Your task to perform on an android device: Search for vegetarian restaurants on Maps Image 0: 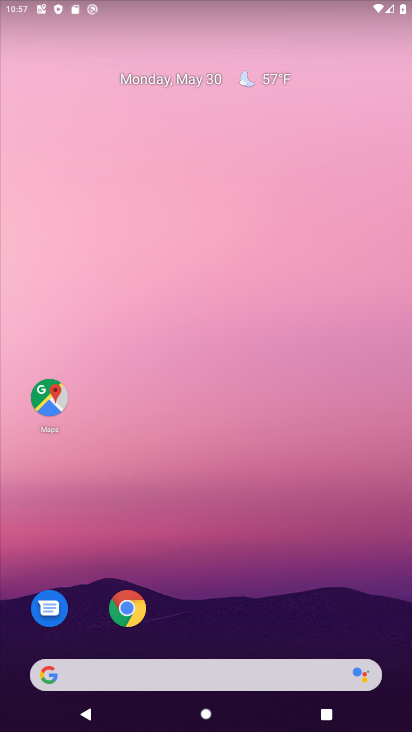
Step 0: drag from (312, 546) to (271, 35)
Your task to perform on an android device: Search for vegetarian restaurants on Maps Image 1: 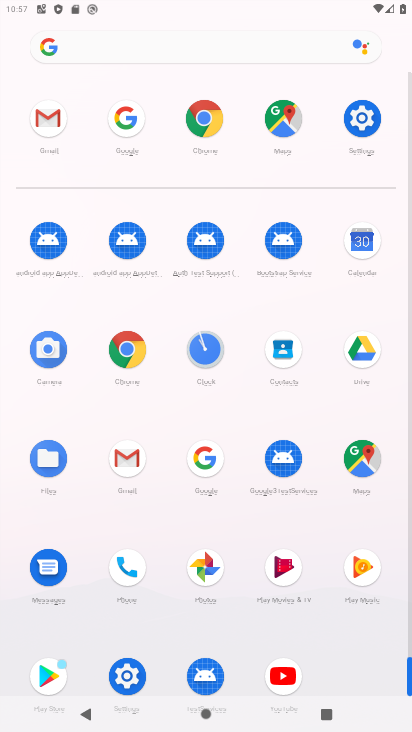
Step 1: drag from (18, 594) to (17, 216)
Your task to perform on an android device: Search for vegetarian restaurants on Maps Image 2: 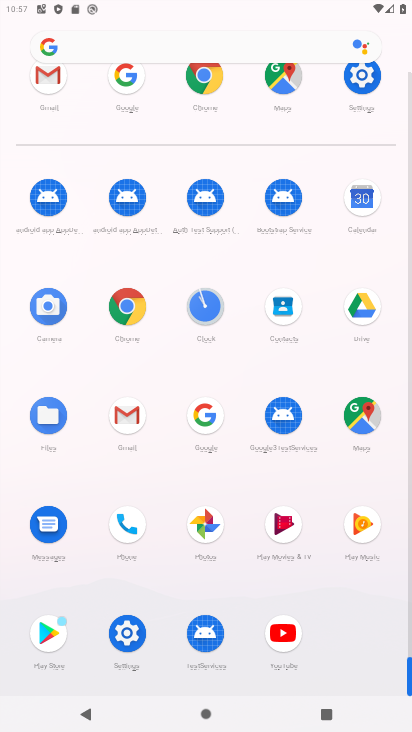
Step 2: click (362, 413)
Your task to perform on an android device: Search for vegetarian restaurants on Maps Image 3: 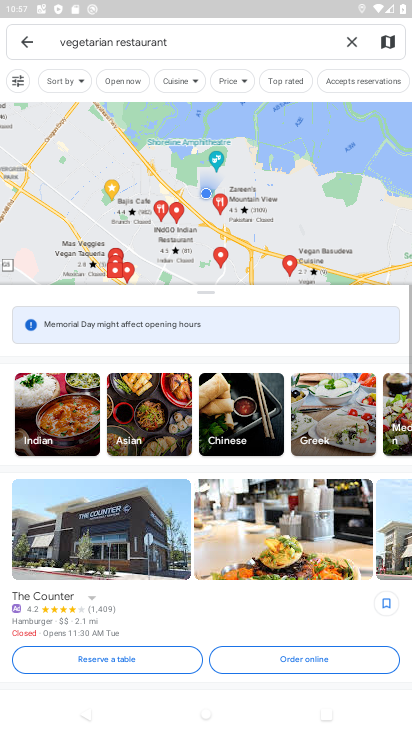
Step 3: click (353, 37)
Your task to perform on an android device: Search for vegetarian restaurants on Maps Image 4: 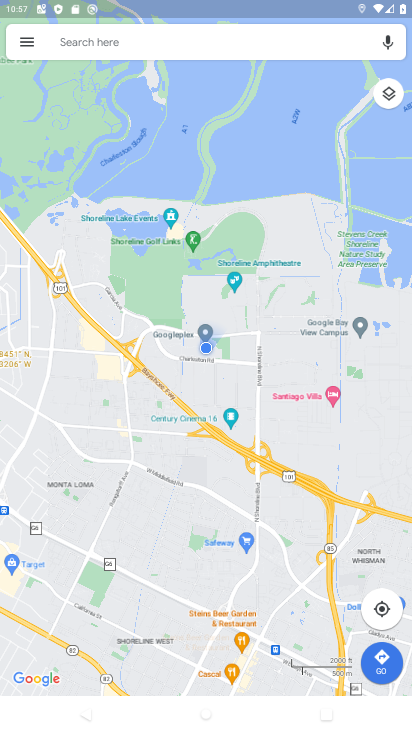
Step 4: click (184, 34)
Your task to perform on an android device: Search for vegetarian restaurants on Maps Image 5: 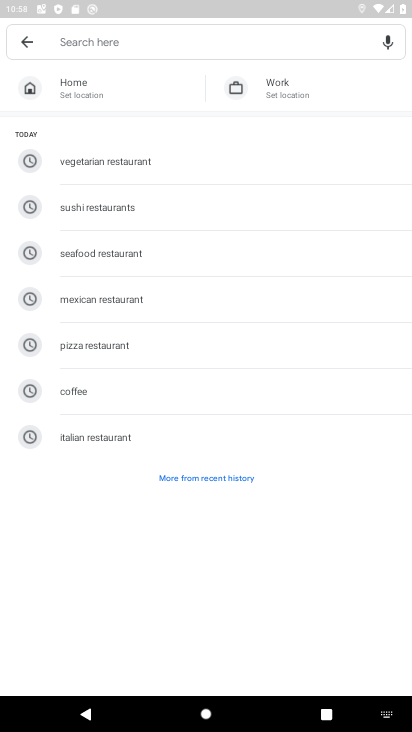
Step 5: click (156, 161)
Your task to perform on an android device: Search for vegetarian restaurants on Maps Image 6: 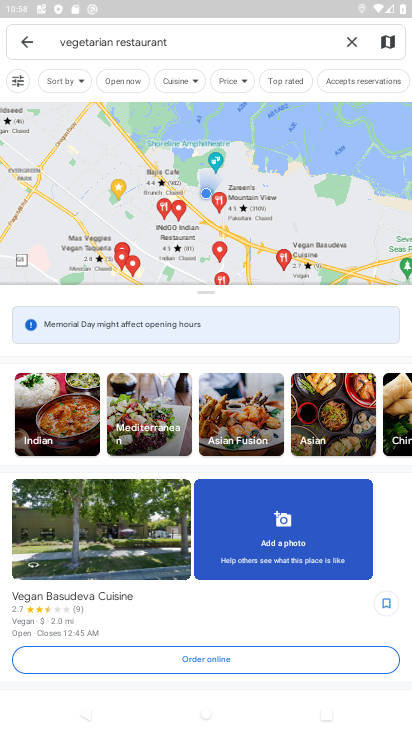
Step 6: task complete